Your task to perform on an android device: open a new tab in the chrome app Image 0: 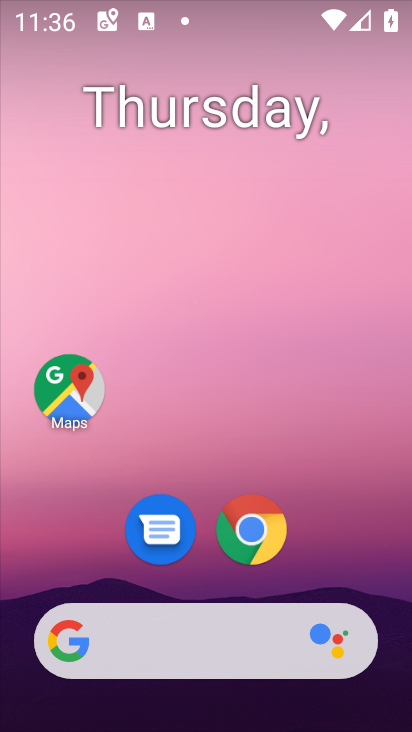
Step 0: drag from (251, 604) to (232, 151)
Your task to perform on an android device: open a new tab in the chrome app Image 1: 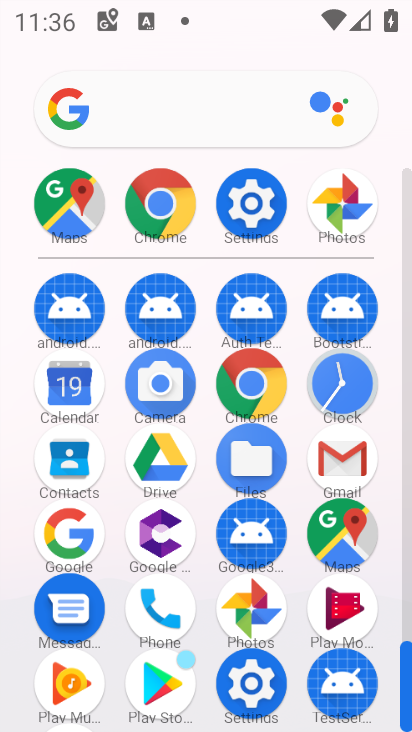
Step 1: click (268, 551)
Your task to perform on an android device: open a new tab in the chrome app Image 2: 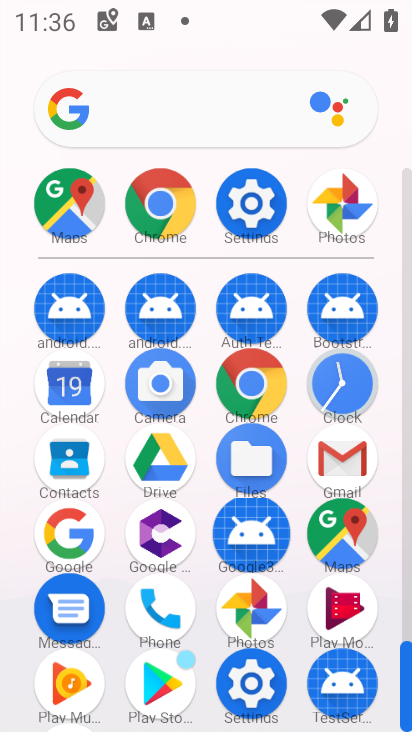
Step 2: click (315, 403)
Your task to perform on an android device: open a new tab in the chrome app Image 3: 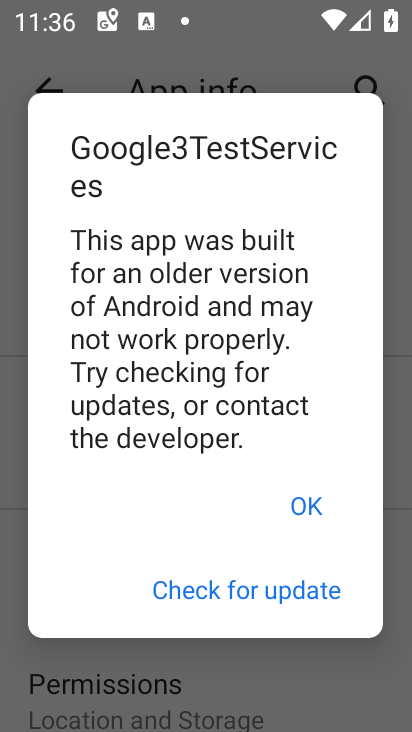
Step 3: click (293, 511)
Your task to perform on an android device: open a new tab in the chrome app Image 4: 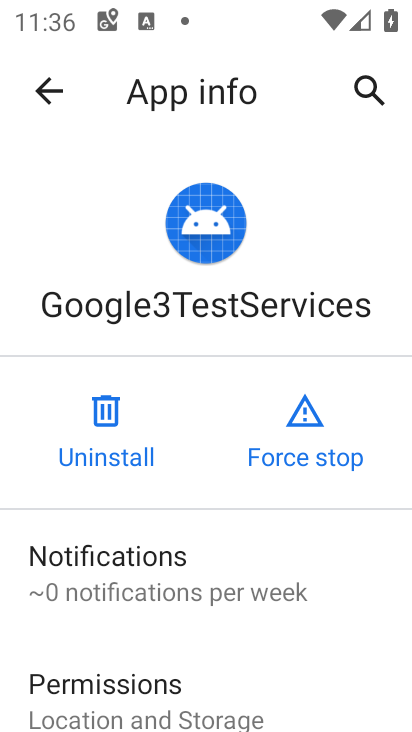
Step 4: press home button
Your task to perform on an android device: open a new tab in the chrome app Image 5: 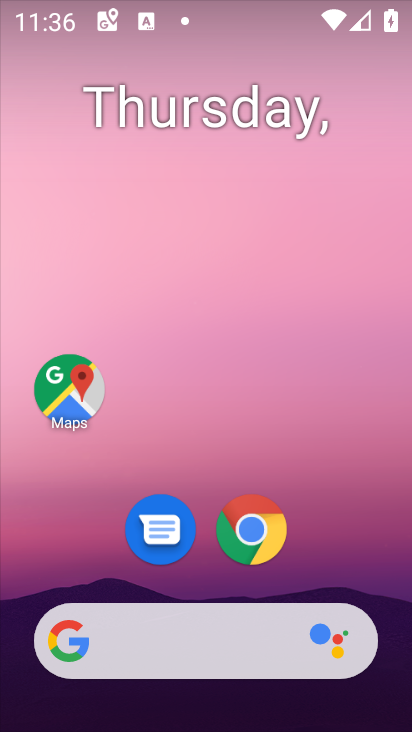
Step 5: click (249, 545)
Your task to perform on an android device: open a new tab in the chrome app Image 6: 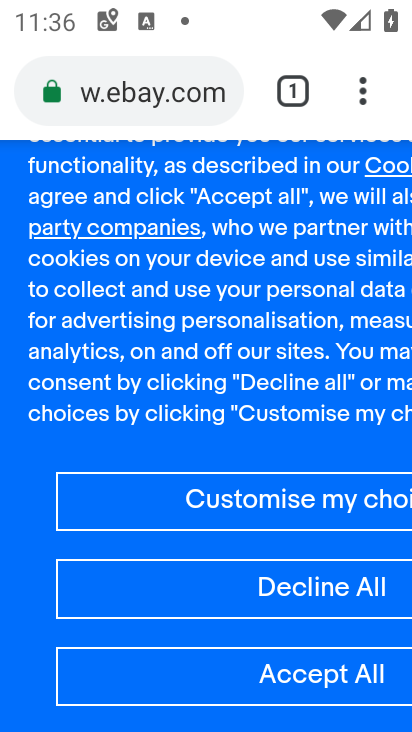
Step 6: drag from (301, 106) to (245, 360)
Your task to perform on an android device: open a new tab in the chrome app Image 7: 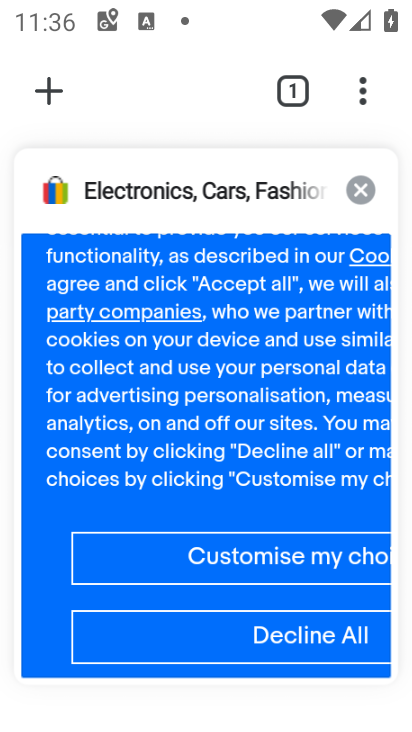
Step 7: click (59, 101)
Your task to perform on an android device: open a new tab in the chrome app Image 8: 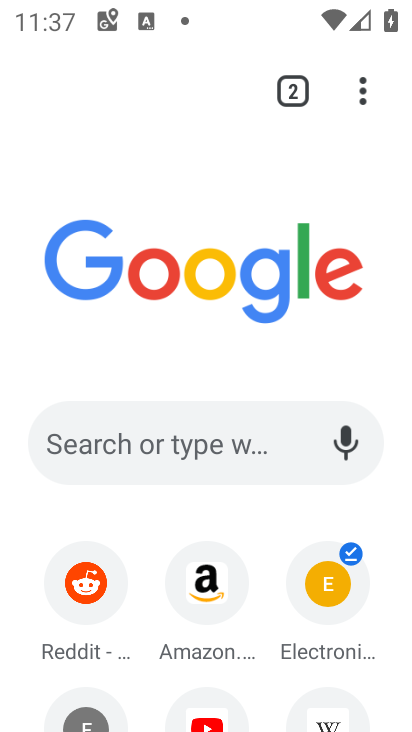
Step 8: task complete